Your task to perform on an android device: Do I have any events this weekend? Image 0: 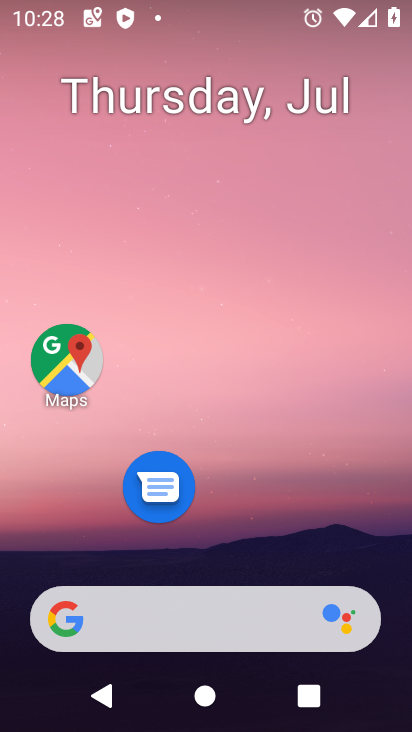
Step 0: click (283, 211)
Your task to perform on an android device: Do I have any events this weekend? Image 1: 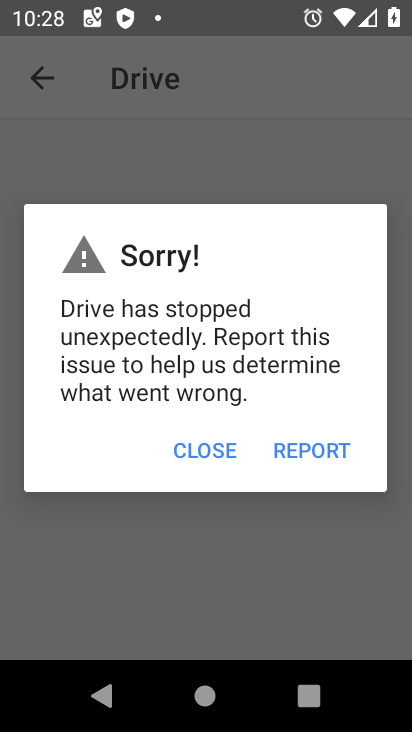
Step 1: press home button
Your task to perform on an android device: Do I have any events this weekend? Image 2: 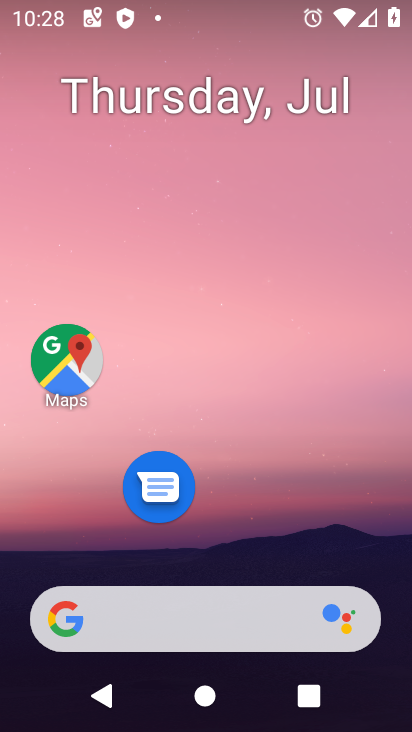
Step 2: drag from (247, 590) to (304, 223)
Your task to perform on an android device: Do I have any events this weekend? Image 3: 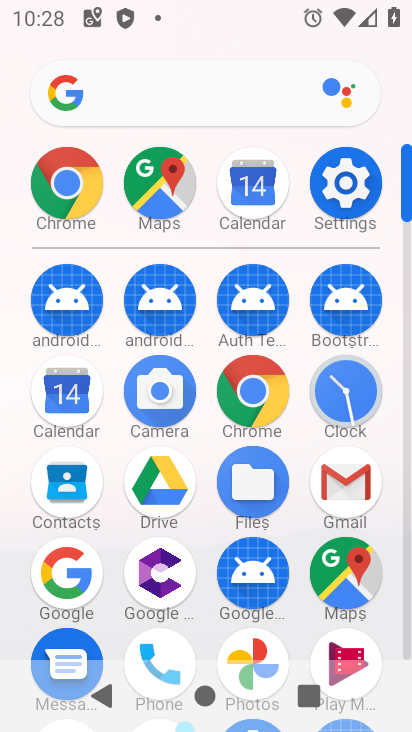
Step 3: click (73, 417)
Your task to perform on an android device: Do I have any events this weekend? Image 4: 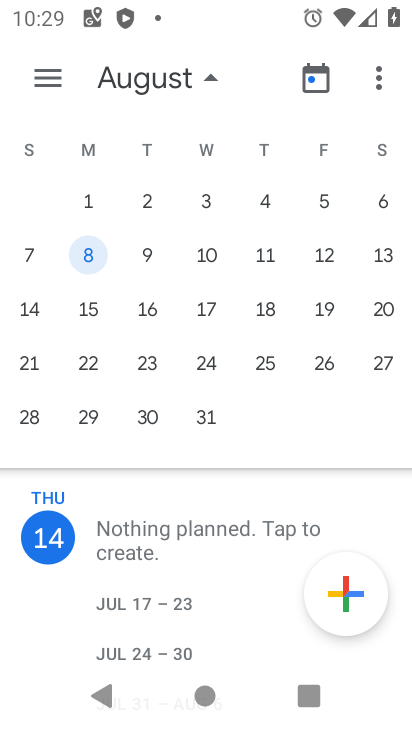
Step 4: drag from (87, 264) to (373, 278)
Your task to perform on an android device: Do I have any events this weekend? Image 5: 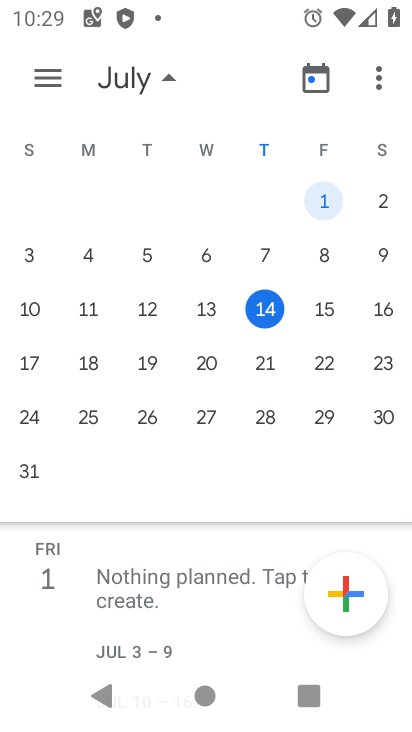
Step 5: click (33, 363)
Your task to perform on an android device: Do I have any events this weekend? Image 6: 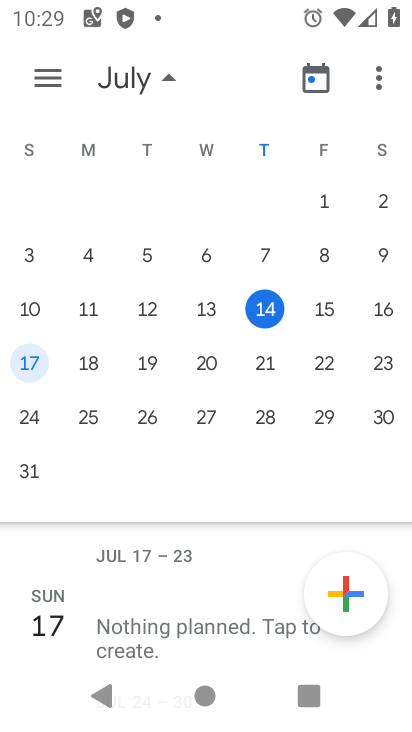
Step 6: task complete